Your task to perform on an android device: Open privacy settings Image 0: 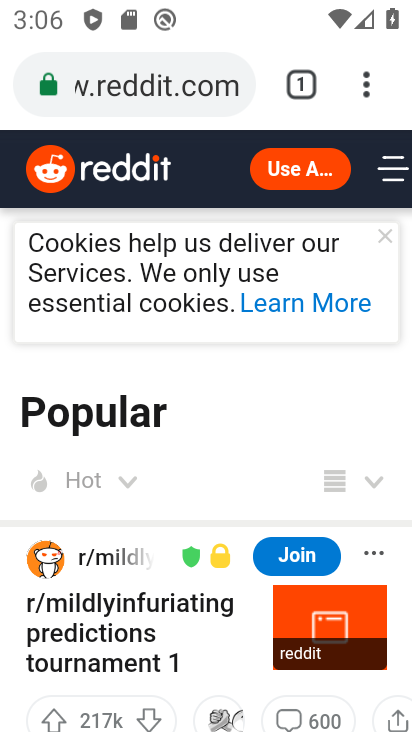
Step 0: press home button
Your task to perform on an android device: Open privacy settings Image 1: 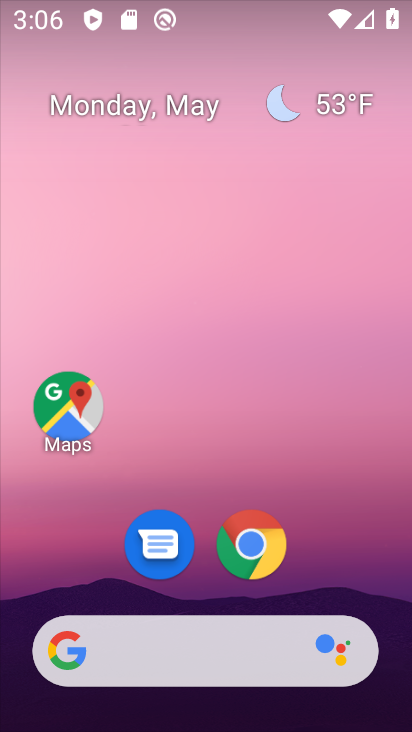
Step 1: click (264, 559)
Your task to perform on an android device: Open privacy settings Image 2: 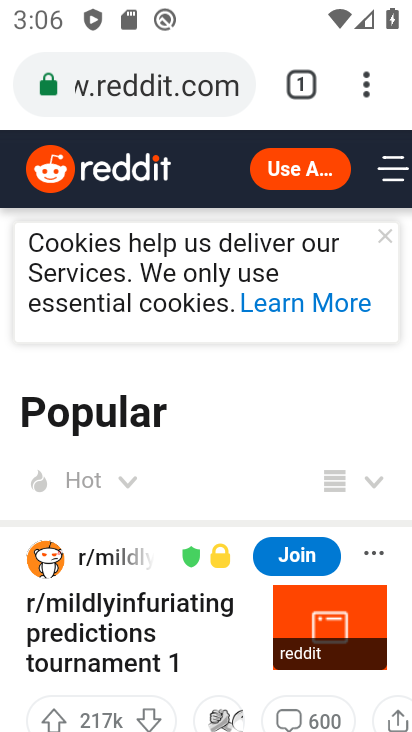
Step 2: press home button
Your task to perform on an android device: Open privacy settings Image 3: 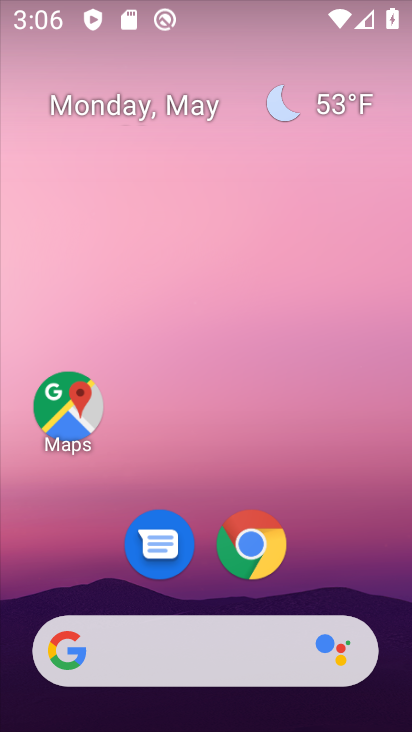
Step 3: drag from (136, 729) to (185, 63)
Your task to perform on an android device: Open privacy settings Image 4: 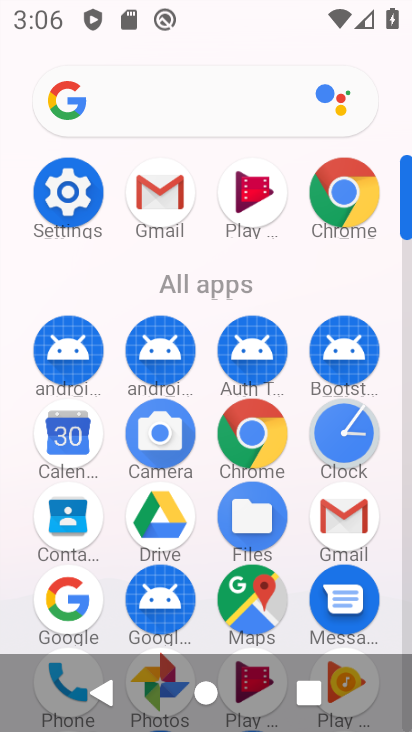
Step 4: click (82, 200)
Your task to perform on an android device: Open privacy settings Image 5: 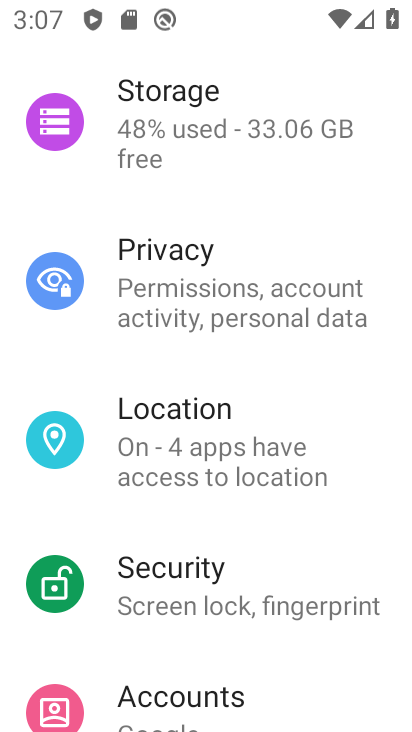
Step 5: click (228, 311)
Your task to perform on an android device: Open privacy settings Image 6: 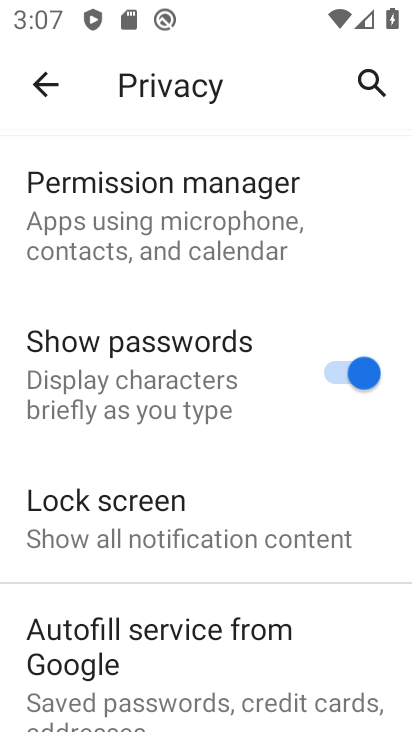
Step 6: task complete